Your task to perform on an android device: delete the emails in spam in the gmail app Image 0: 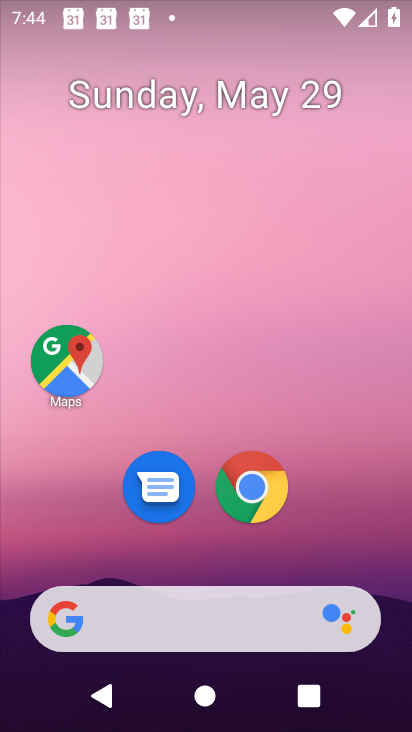
Step 0: drag from (250, 582) to (194, 152)
Your task to perform on an android device: delete the emails in spam in the gmail app Image 1: 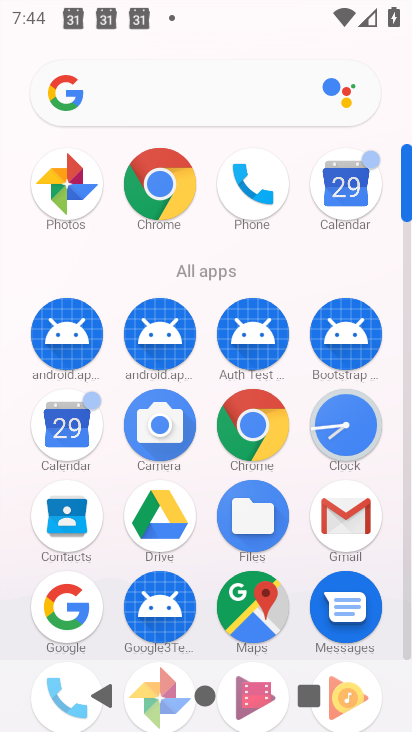
Step 1: click (354, 532)
Your task to perform on an android device: delete the emails in spam in the gmail app Image 2: 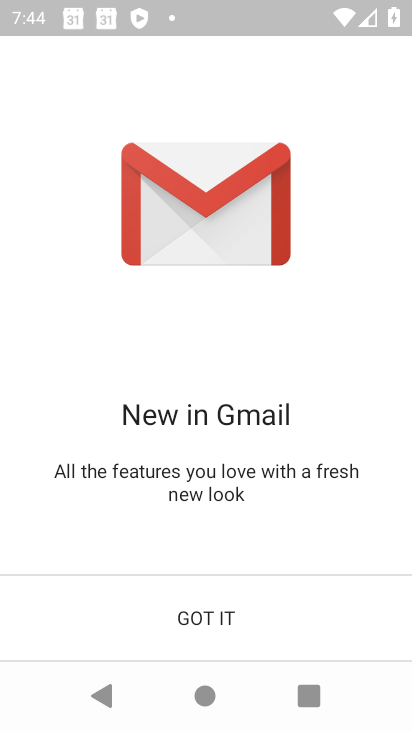
Step 2: click (161, 637)
Your task to perform on an android device: delete the emails in spam in the gmail app Image 3: 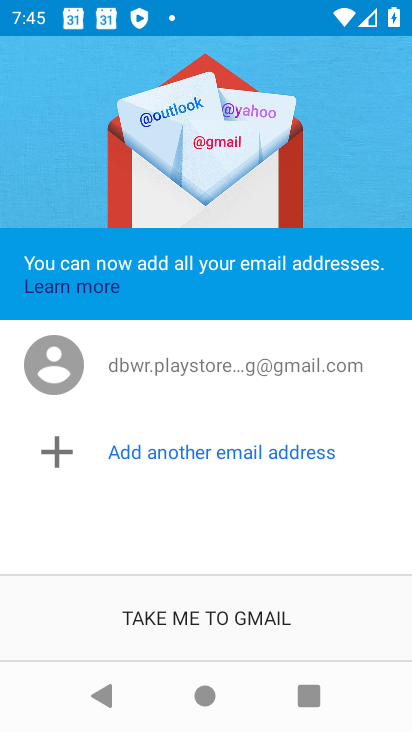
Step 3: click (208, 629)
Your task to perform on an android device: delete the emails in spam in the gmail app Image 4: 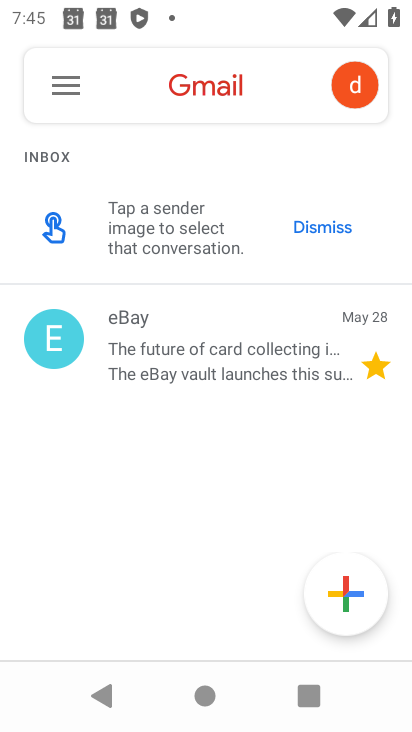
Step 4: click (66, 80)
Your task to perform on an android device: delete the emails in spam in the gmail app Image 5: 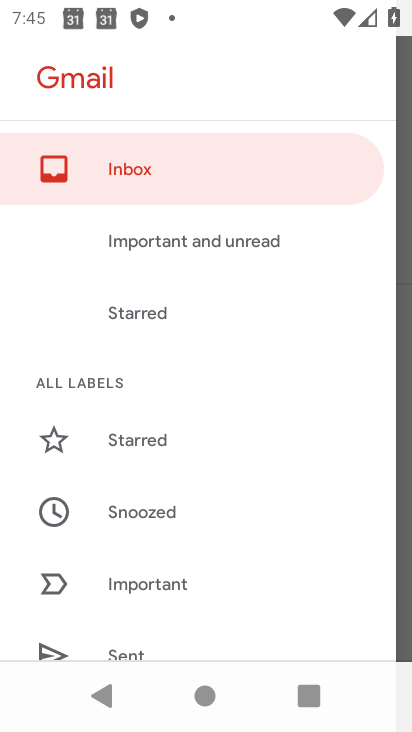
Step 5: drag from (176, 567) to (187, 200)
Your task to perform on an android device: delete the emails in spam in the gmail app Image 6: 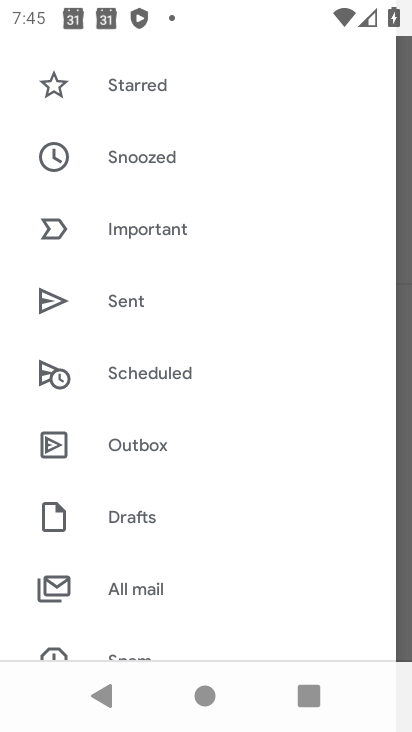
Step 6: drag from (160, 536) to (178, 44)
Your task to perform on an android device: delete the emails in spam in the gmail app Image 7: 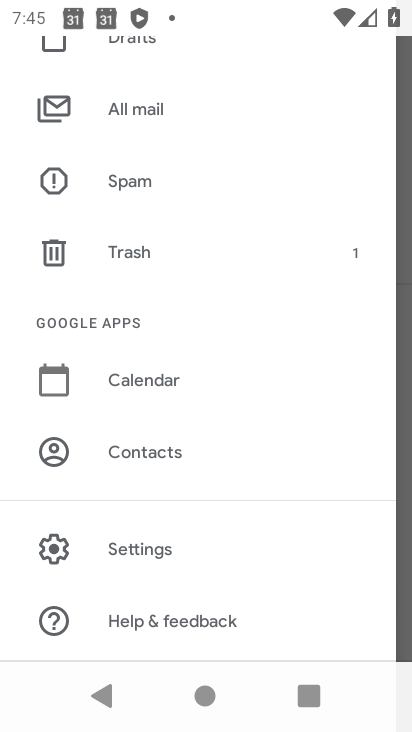
Step 7: click (148, 191)
Your task to perform on an android device: delete the emails in spam in the gmail app Image 8: 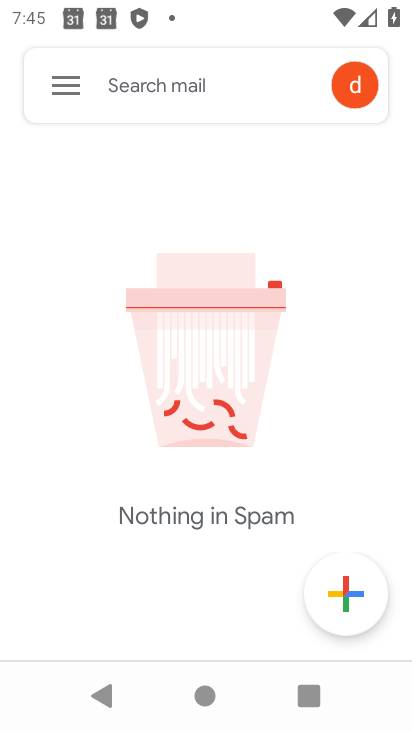
Step 8: task complete